Your task to perform on an android device: check storage Image 0: 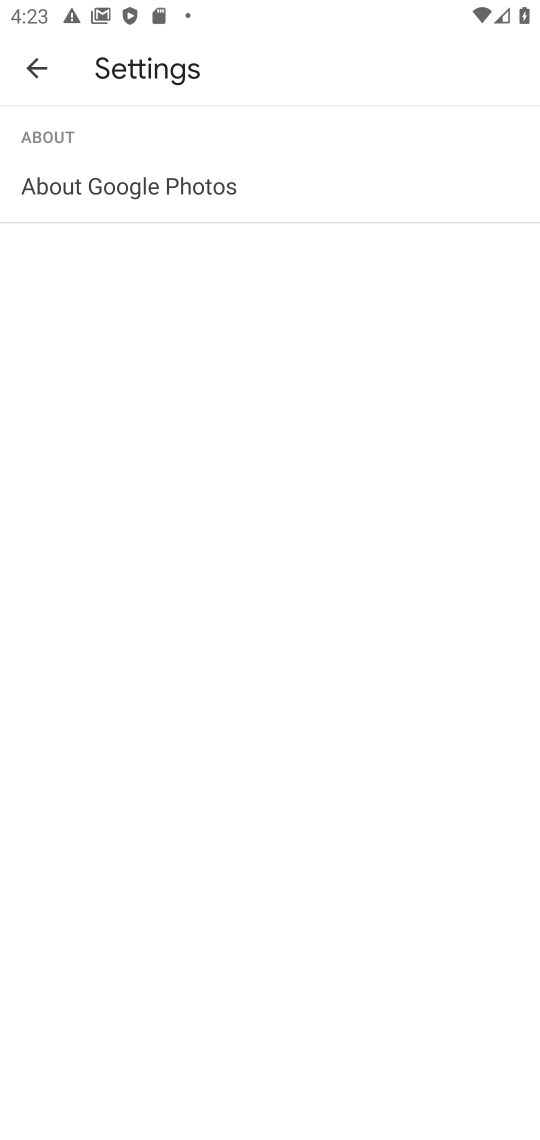
Step 0: press home button
Your task to perform on an android device: check storage Image 1: 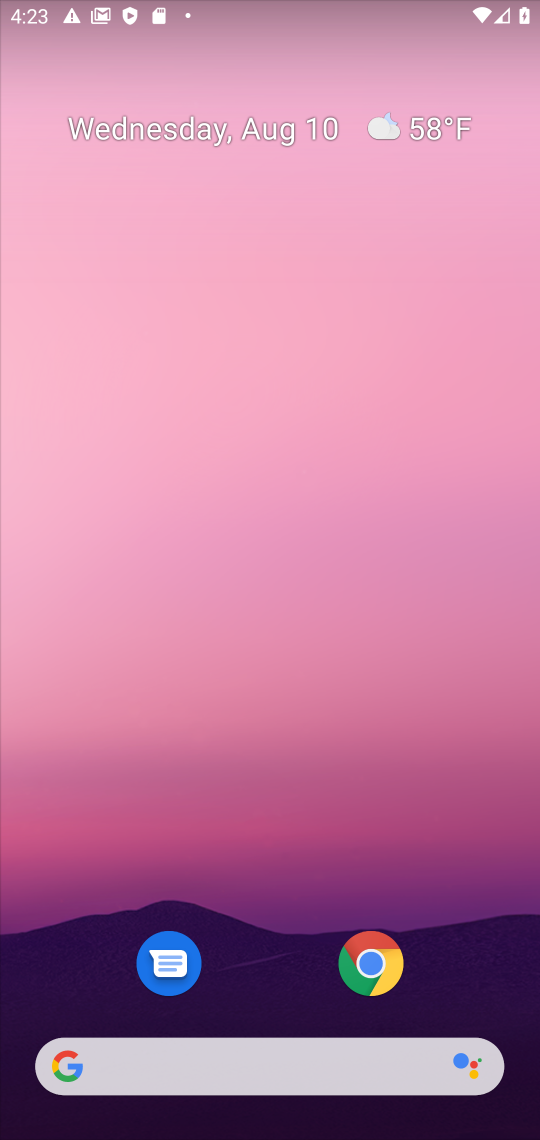
Step 1: drag from (275, 968) to (406, 3)
Your task to perform on an android device: check storage Image 2: 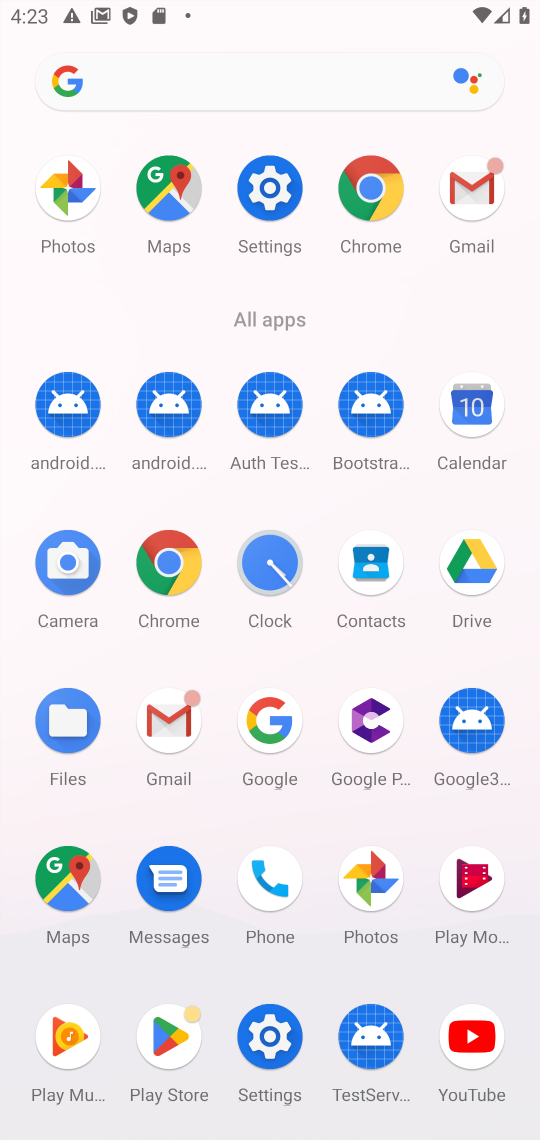
Step 2: drag from (334, 15) to (196, 913)
Your task to perform on an android device: check storage Image 3: 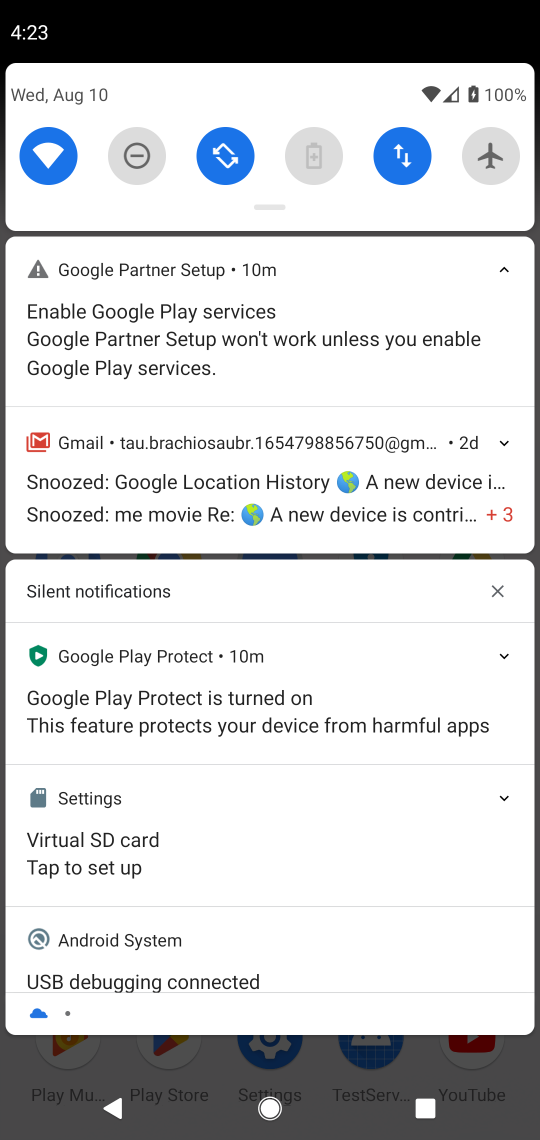
Step 3: click (406, 1052)
Your task to perform on an android device: check storage Image 4: 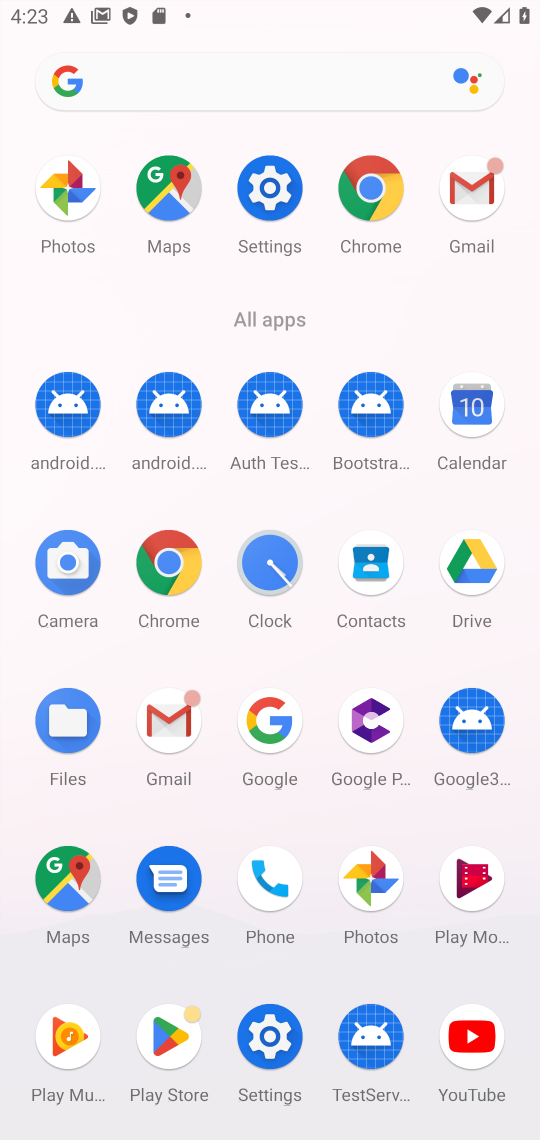
Step 4: click (267, 1012)
Your task to perform on an android device: check storage Image 5: 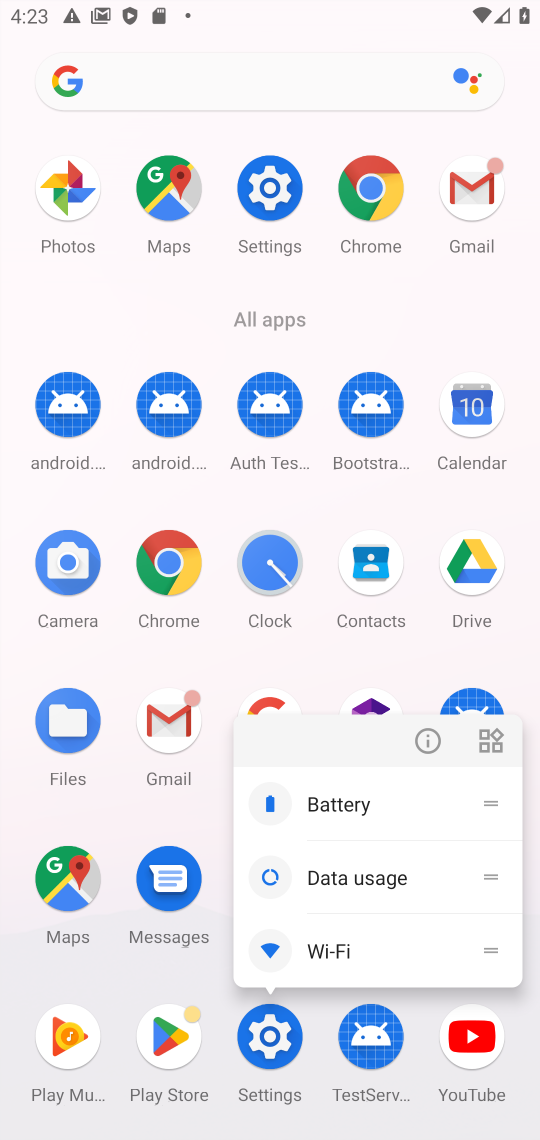
Step 5: click (269, 1042)
Your task to perform on an android device: check storage Image 6: 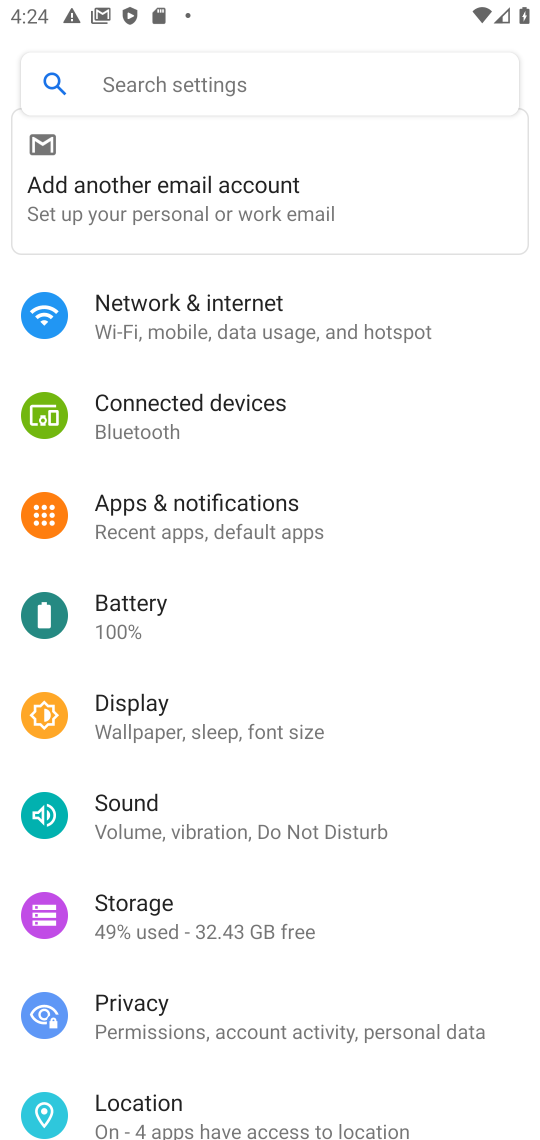
Step 6: drag from (268, 930) to (336, 292)
Your task to perform on an android device: check storage Image 7: 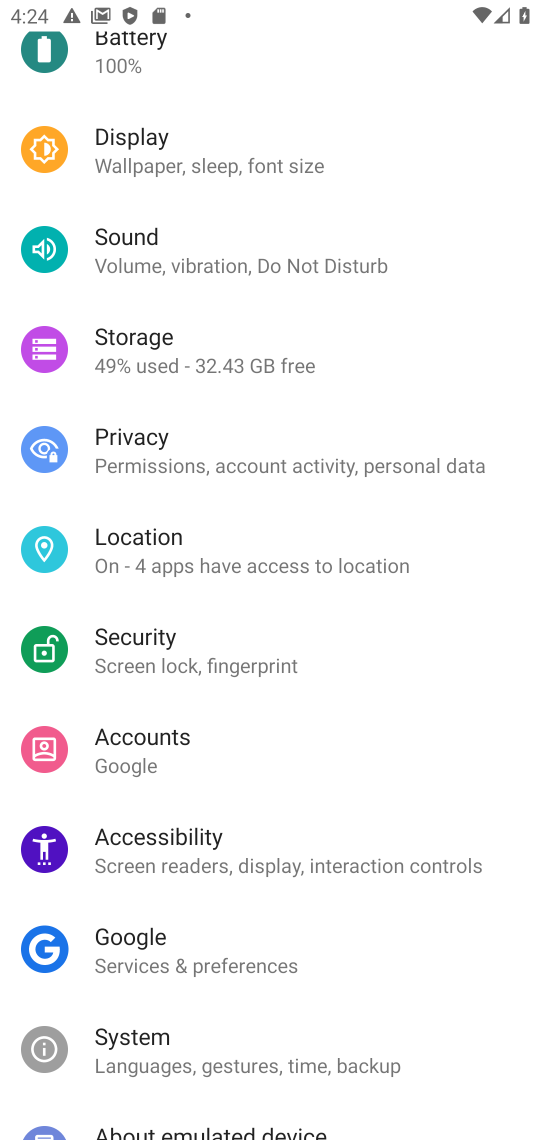
Step 7: click (134, 360)
Your task to perform on an android device: check storage Image 8: 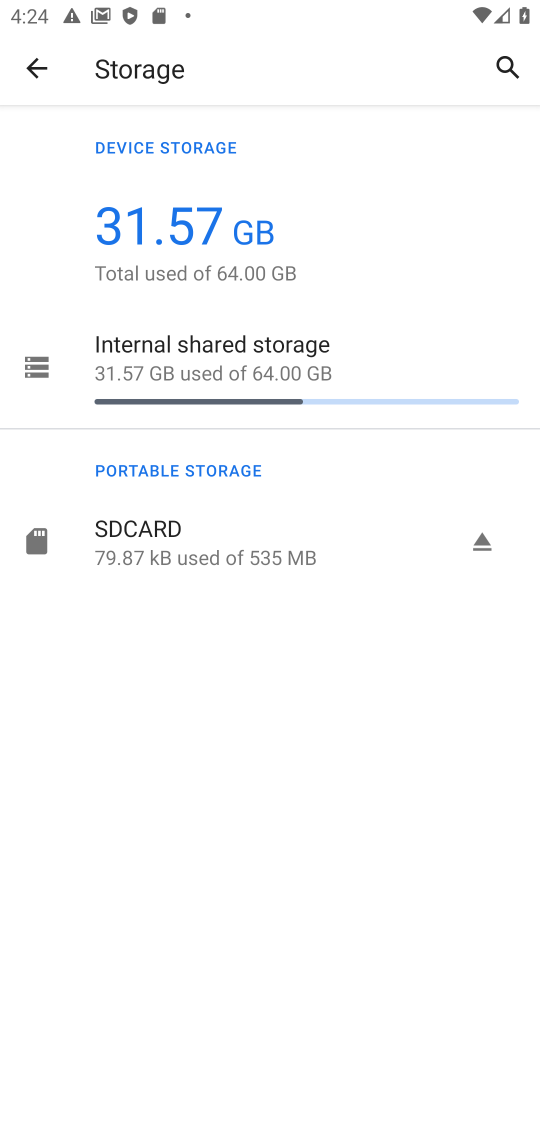
Step 8: task complete